Your task to perform on an android device: change alarm snooze length Image 0: 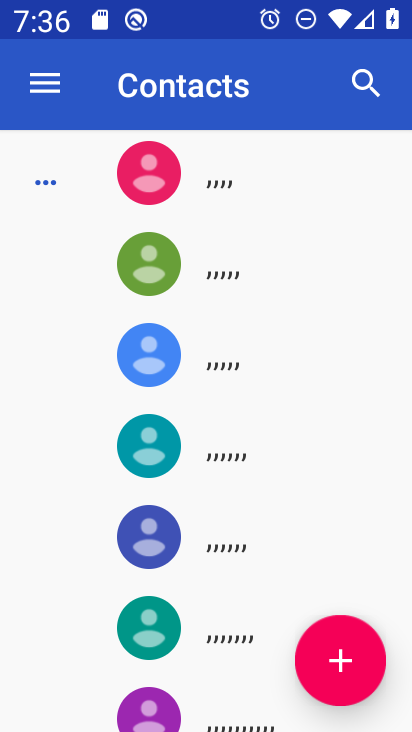
Step 0: press home button
Your task to perform on an android device: change alarm snooze length Image 1: 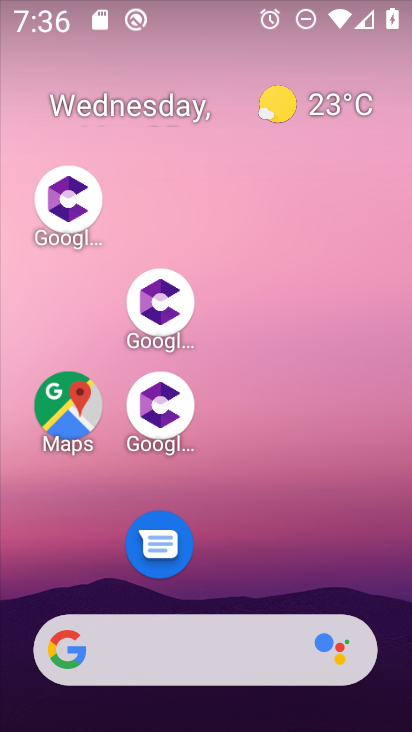
Step 1: drag from (259, 505) to (339, 35)
Your task to perform on an android device: change alarm snooze length Image 2: 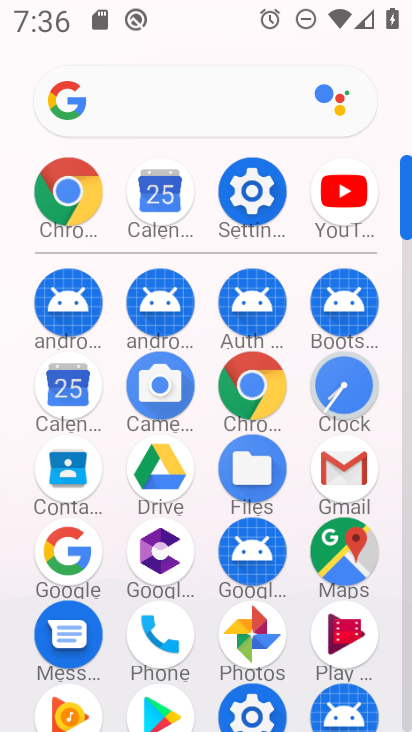
Step 2: click (346, 381)
Your task to perform on an android device: change alarm snooze length Image 3: 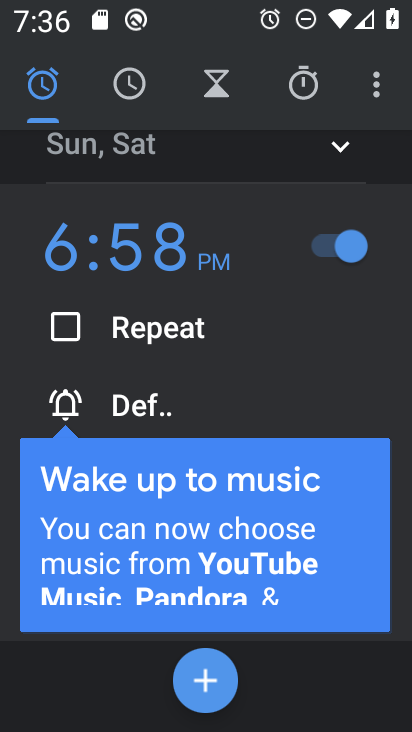
Step 3: click (380, 84)
Your task to perform on an android device: change alarm snooze length Image 4: 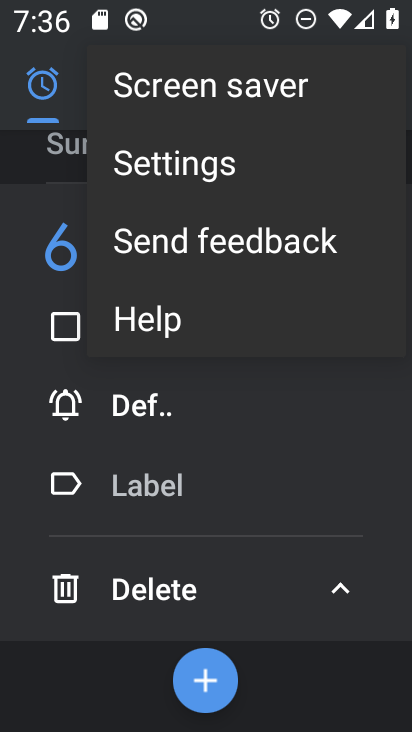
Step 4: click (182, 170)
Your task to perform on an android device: change alarm snooze length Image 5: 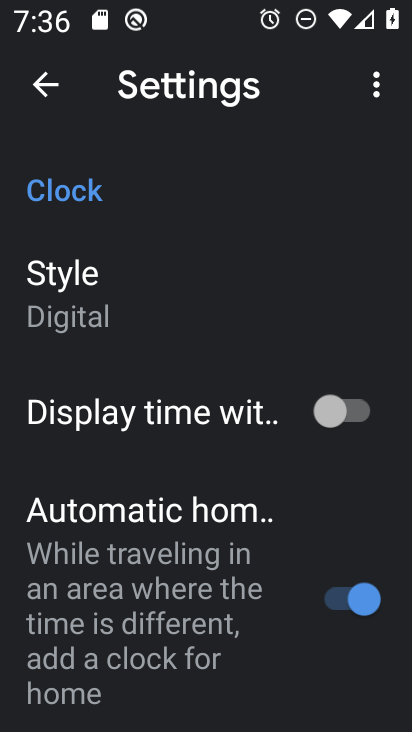
Step 5: drag from (251, 468) to (159, 100)
Your task to perform on an android device: change alarm snooze length Image 6: 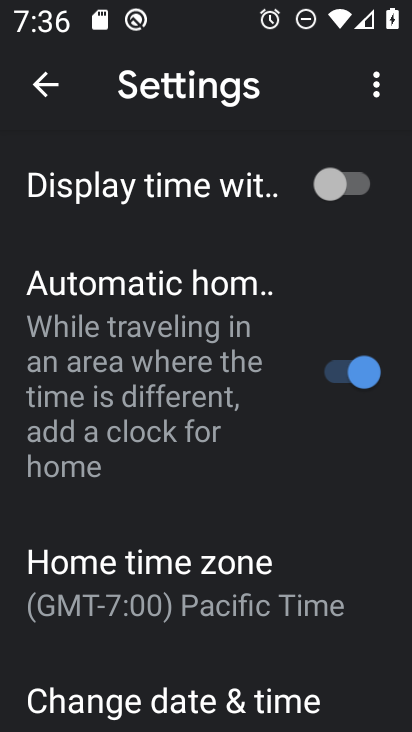
Step 6: drag from (246, 533) to (191, 168)
Your task to perform on an android device: change alarm snooze length Image 7: 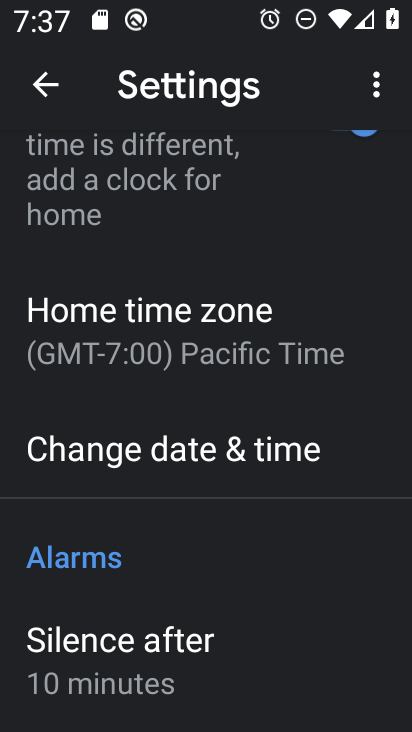
Step 7: drag from (250, 563) to (219, 268)
Your task to perform on an android device: change alarm snooze length Image 8: 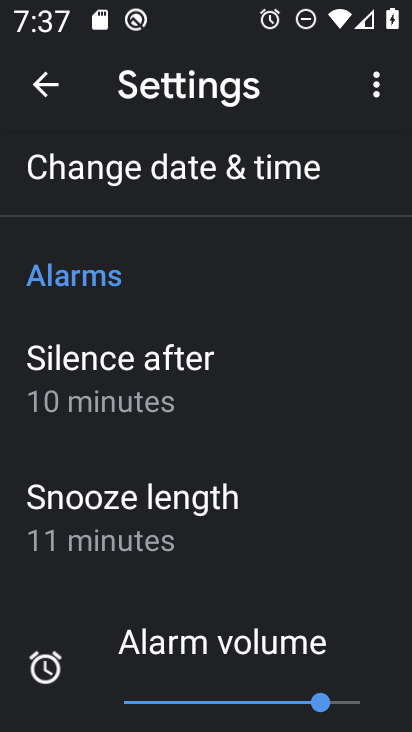
Step 8: click (138, 506)
Your task to perform on an android device: change alarm snooze length Image 9: 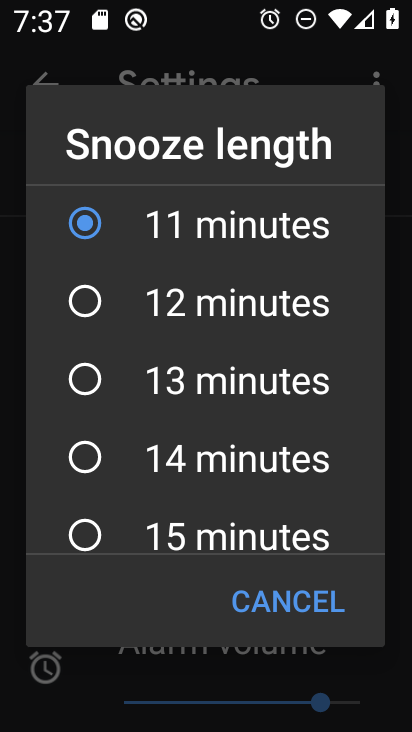
Step 9: click (96, 300)
Your task to perform on an android device: change alarm snooze length Image 10: 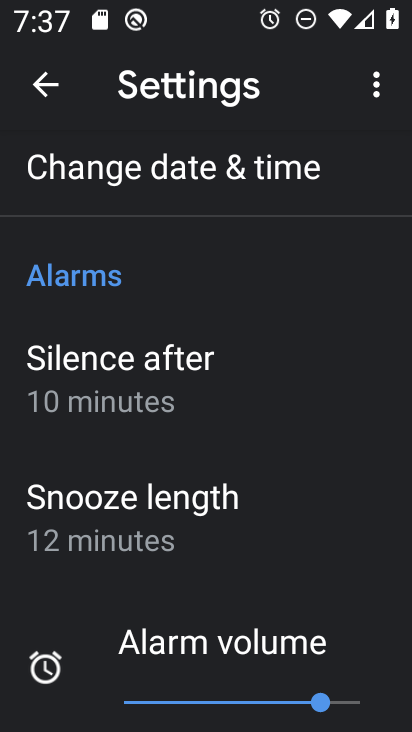
Step 10: task complete